Your task to perform on an android device: open chrome and create a bookmark for the current page Image 0: 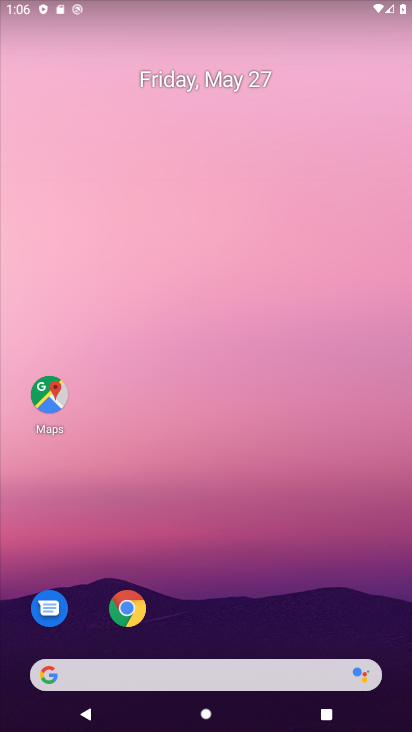
Step 0: press home button
Your task to perform on an android device: open chrome and create a bookmark for the current page Image 1: 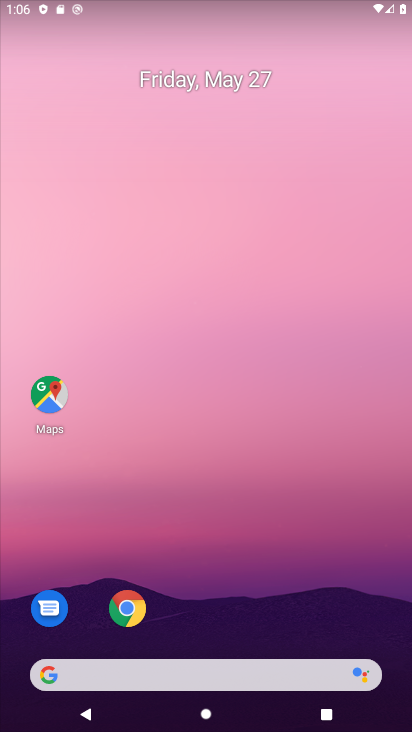
Step 1: click (133, 614)
Your task to perform on an android device: open chrome and create a bookmark for the current page Image 2: 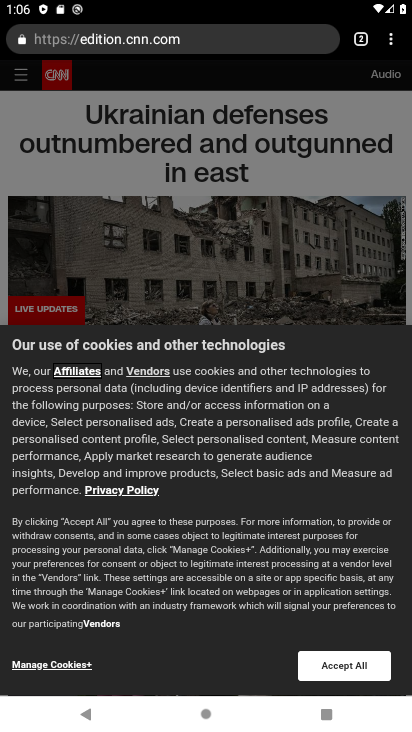
Step 2: click (390, 59)
Your task to perform on an android device: open chrome and create a bookmark for the current page Image 3: 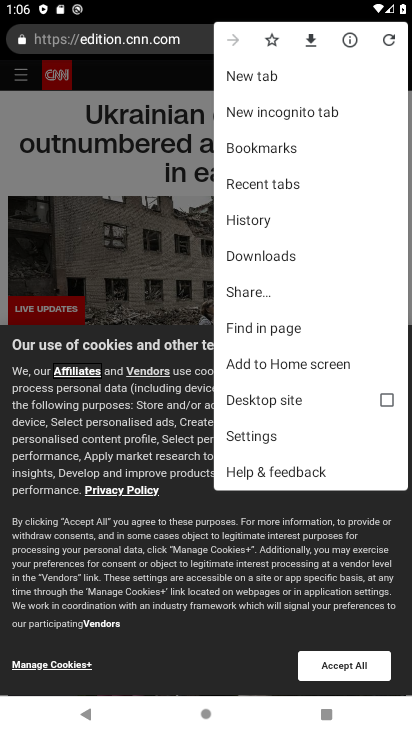
Step 3: click (272, 41)
Your task to perform on an android device: open chrome and create a bookmark for the current page Image 4: 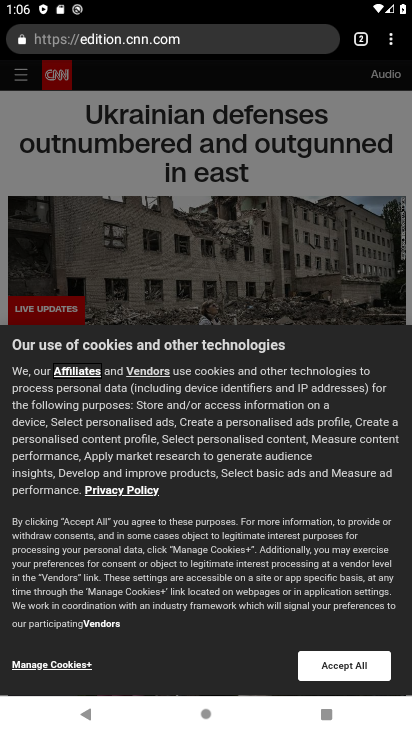
Step 4: task complete